Your task to perform on an android device: Open Google Image 0: 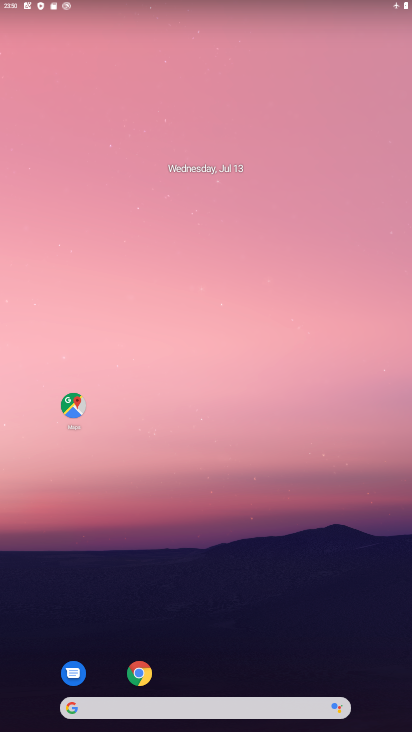
Step 0: click (270, 147)
Your task to perform on an android device: Open Google Image 1: 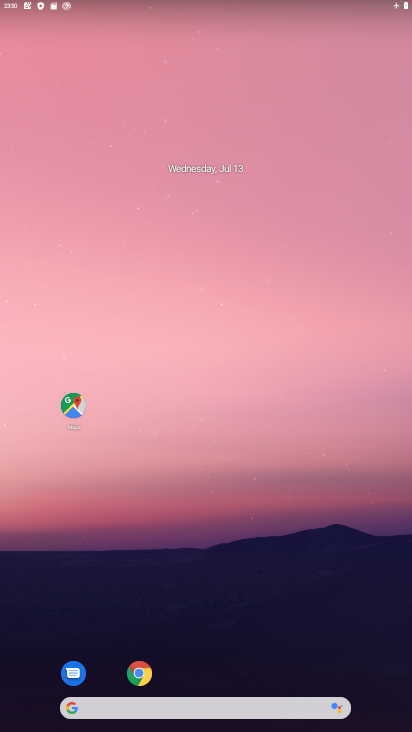
Step 1: drag from (216, 597) to (263, 81)
Your task to perform on an android device: Open Google Image 2: 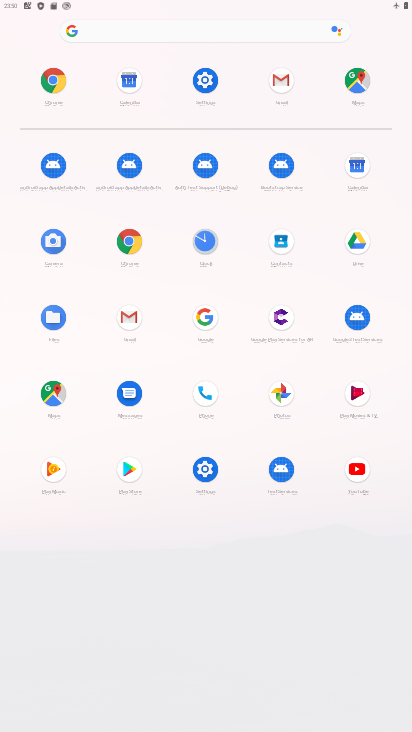
Step 2: click (210, 321)
Your task to perform on an android device: Open Google Image 3: 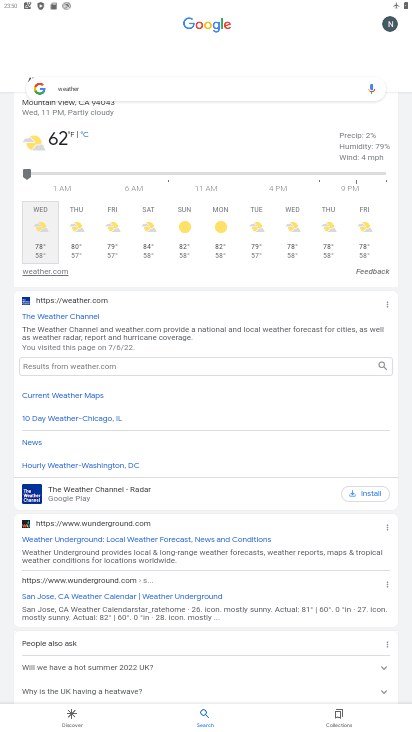
Step 3: task complete